Your task to perform on an android device: Search for vegetarian restaurants on Maps Image 0: 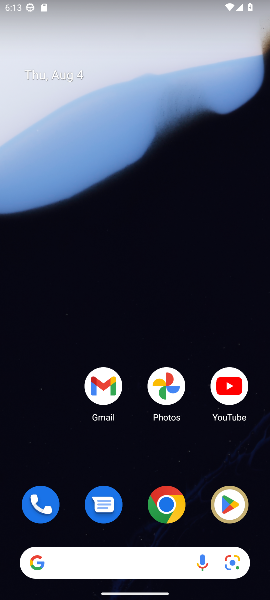
Step 0: drag from (79, 449) to (166, 13)
Your task to perform on an android device: Search for vegetarian restaurants on Maps Image 1: 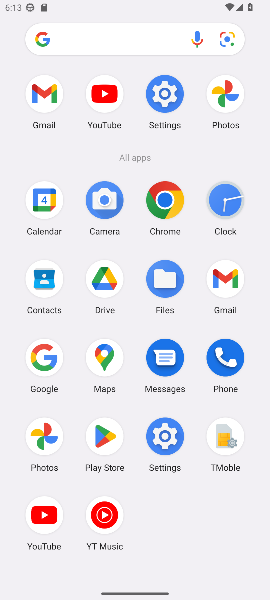
Step 1: click (104, 354)
Your task to perform on an android device: Search for vegetarian restaurants on Maps Image 2: 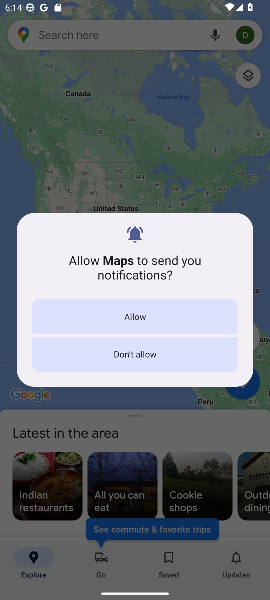
Step 2: click (106, 36)
Your task to perform on an android device: Search for vegetarian restaurants on Maps Image 3: 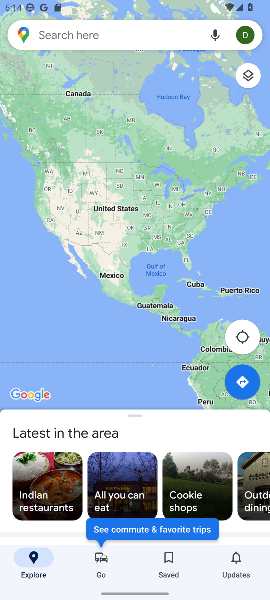
Step 3: click (106, 36)
Your task to perform on an android device: Search for vegetarian restaurants on Maps Image 4: 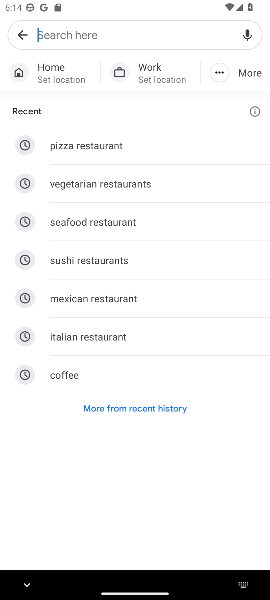
Step 4: click (141, 164)
Your task to perform on an android device: Search for vegetarian restaurants on Maps Image 5: 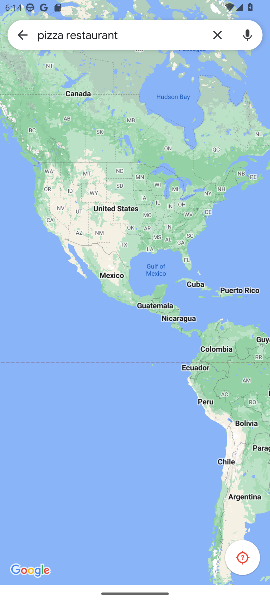
Step 5: click (24, 29)
Your task to perform on an android device: Search for vegetarian restaurants on Maps Image 6: 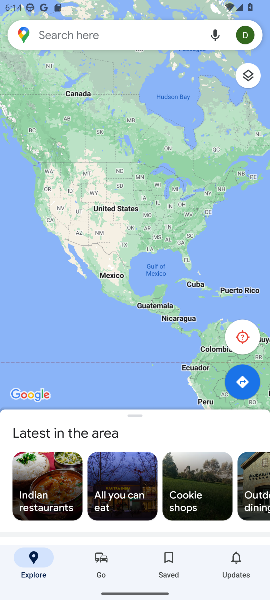
Step 6: click (94, 36)
Your task to perform on an android device: Search for vegetarian restaurants on Maps Image 7: 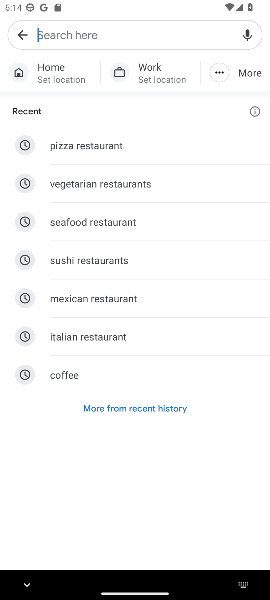
Step 7: click (111, 184)
Your task to perform on an android device: Search for vegetarian restaurants on Maps Image 8: 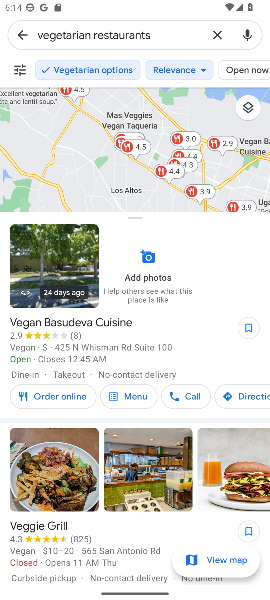
Step 8: task complete